Your task to perform on an android device: Open battery settings Image 0: 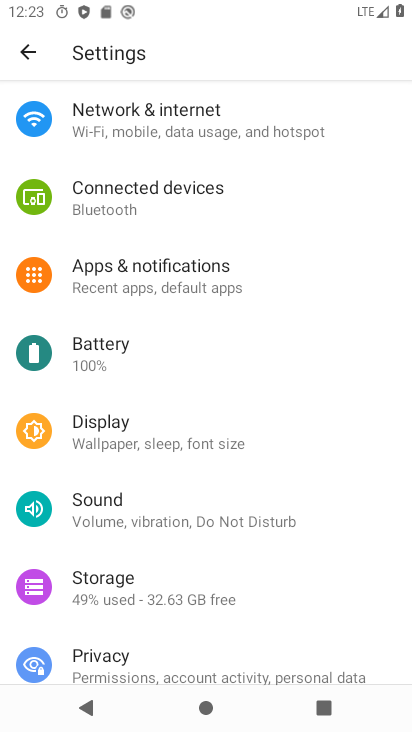
Step 0: click (160, 361)
Your task to perform on an android device: Open battery settings Image 1: 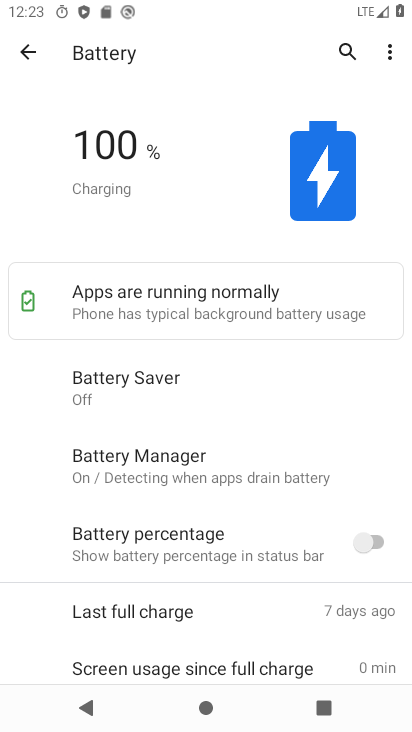
Step 1: task complete